Your task to perform on an android device: delete browsing data in the chrome app Image 0: 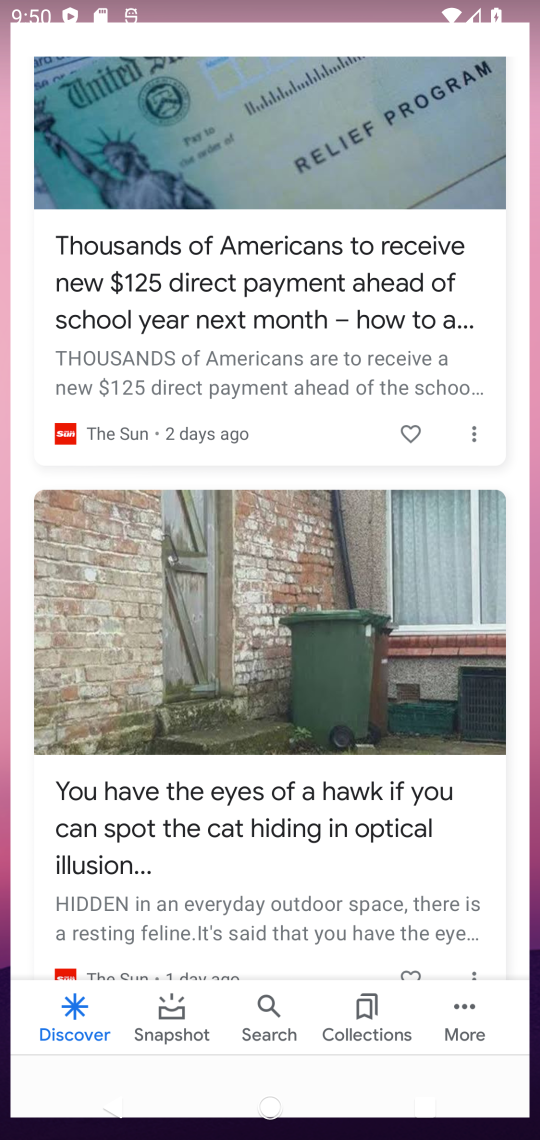
Step 0: press home button
Your task to perform on an android device: delete browsing data in the chrome app Image 1: 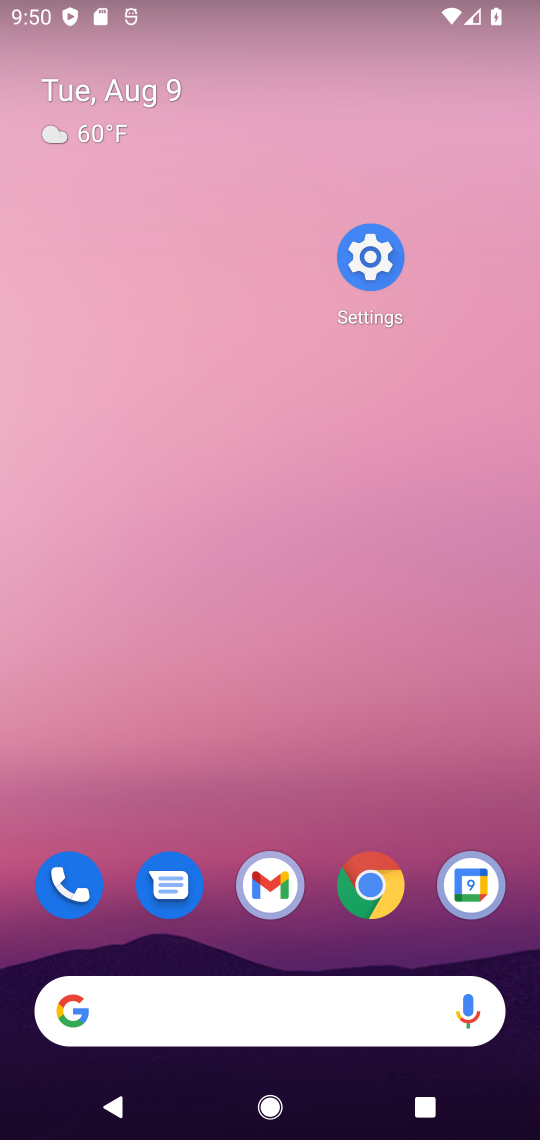
Step 1: press home button
Your task to perform on an android device: delete browsing data in the chrome app Image 2: 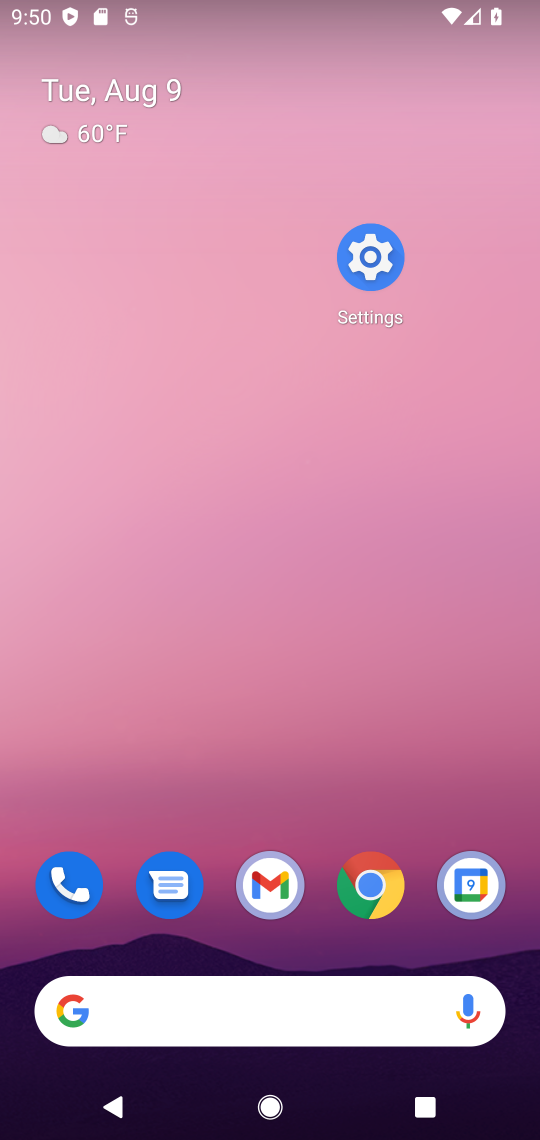
Step 2: drag from (320, 951) to (374, 281)
Your task to perform on an android device: delete browsing data in the chrome app Image 3: 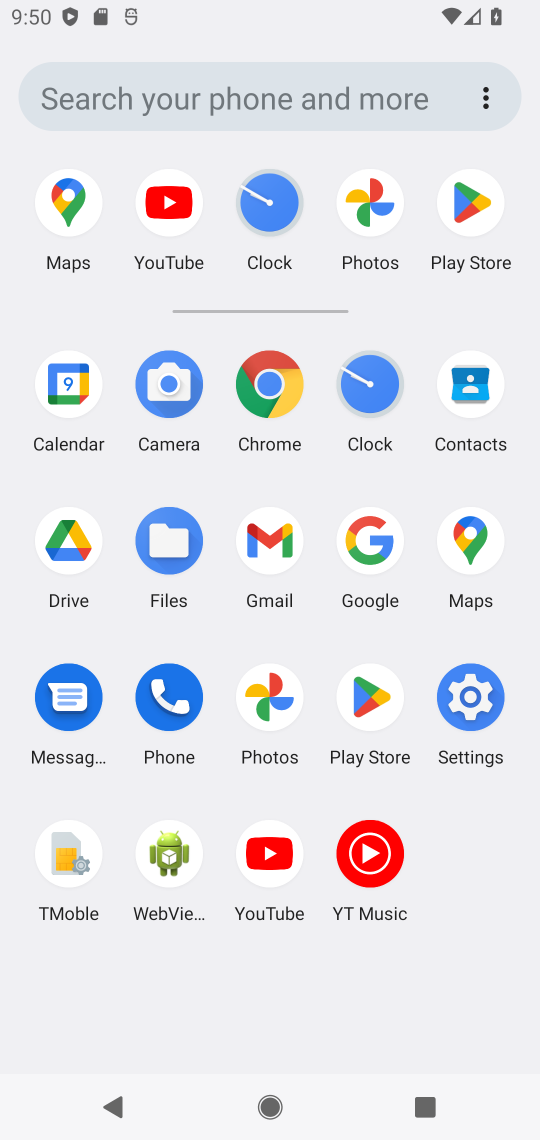
Step 3: click (267, 377)
Your task to perform on an android device: delete browsing data in the chrome app Image 4: 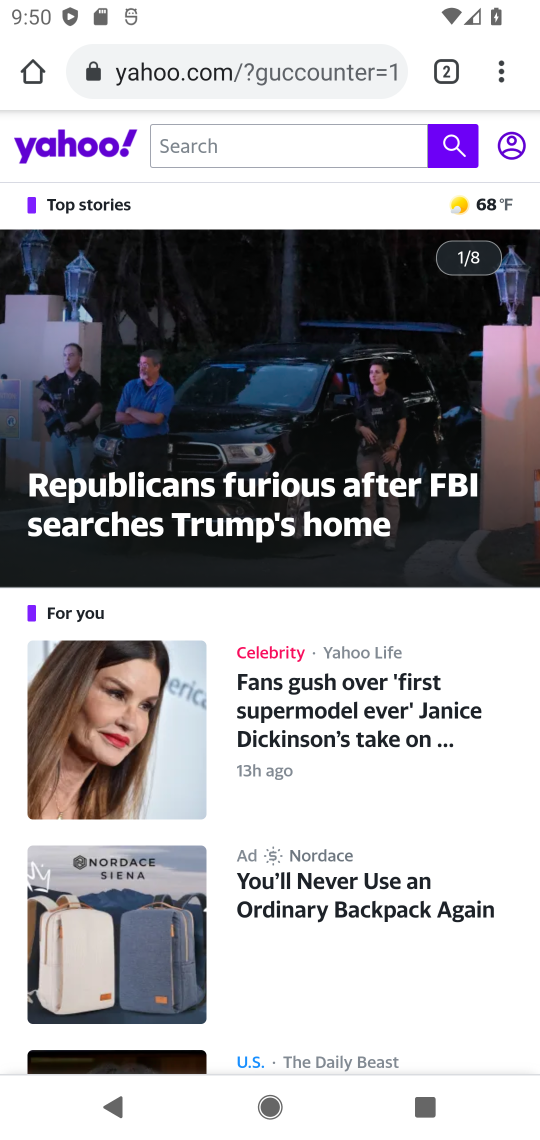
Step 4: click (501, 77)
Your task to perform on an android device: delete browsing data in the chrome app Image 5: 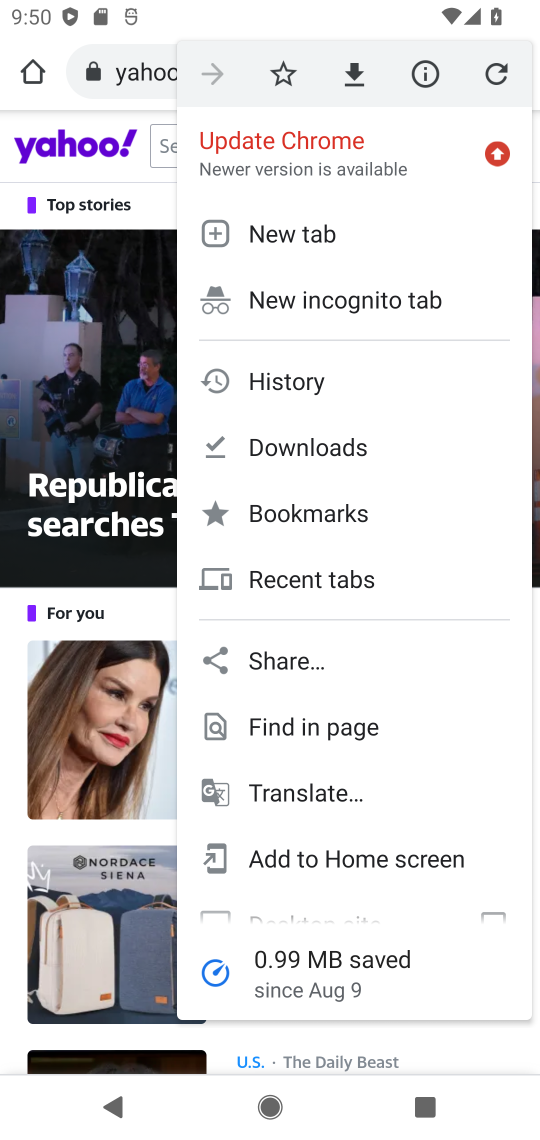
Step 5: drag from (356, 872) to (354, 209)
Your task to perform on an android device: delete browsing data in the chrome app Image 6: 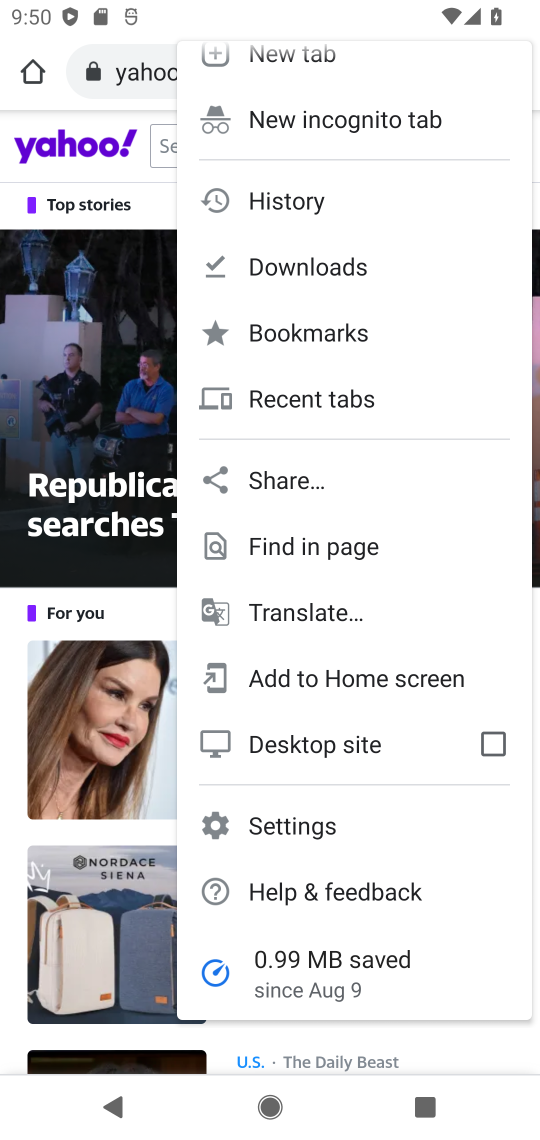
Step 6: click (347, 192)
Your task to perform on an android device: delete browsing data in the chrome app Image 7: 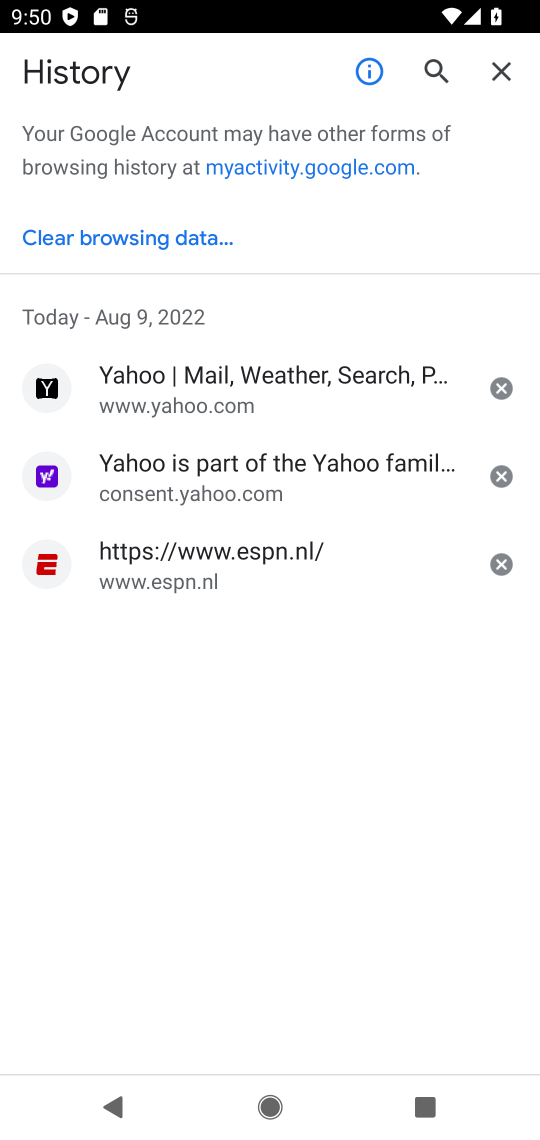
Step 7: click (115, 232)
Your task to perform on an android device: delete browsing data in the chrome app Image 8: 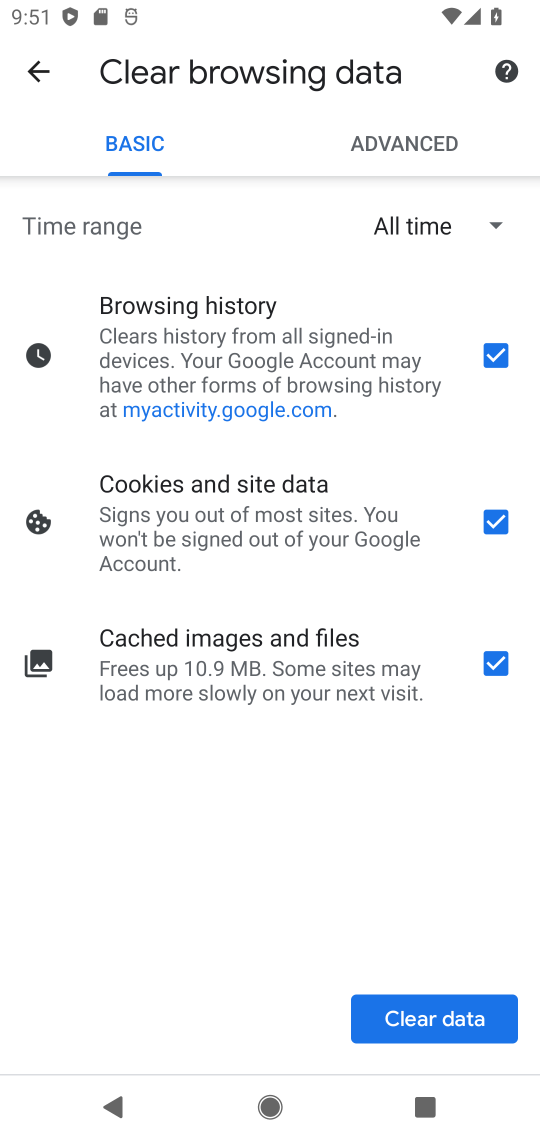
Step 8: click (493, 515)
Your task to perform on an android device: delete browsing data in the chrome app Image 9: 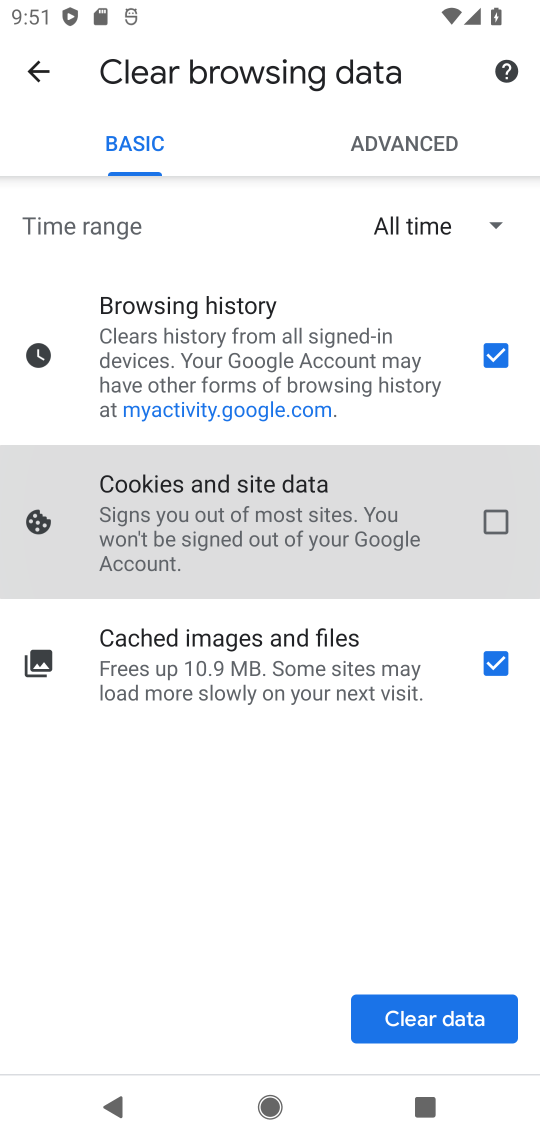
Step 9: click (488, 662)
Your task to perform on an android device: delete browsing data in the chrome app Image 10: 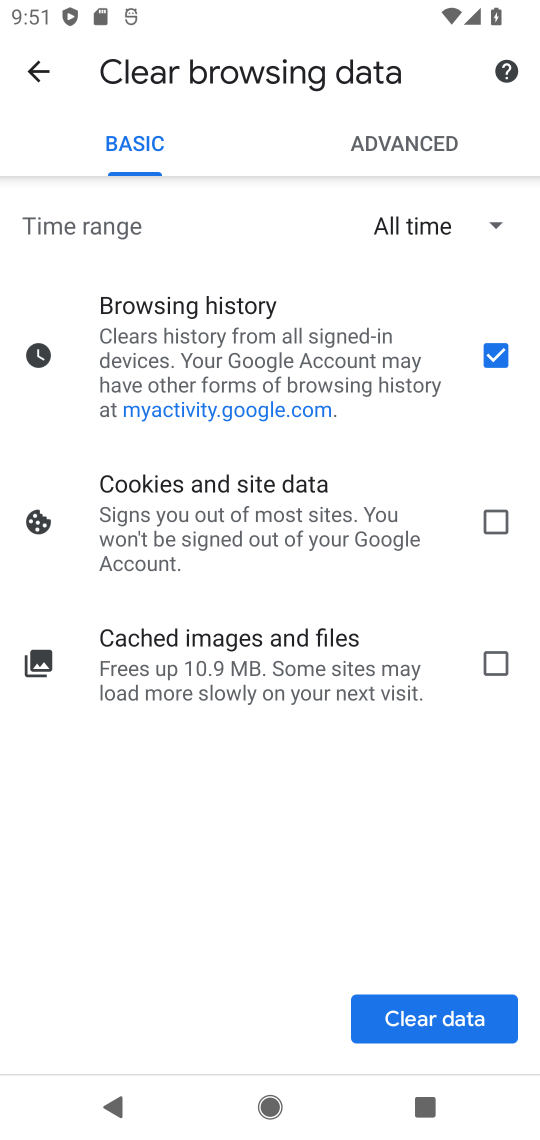
Step 10: click (431, 1015)
Your task to perform on an android device: delete browsing data in the chrome app Image 11: 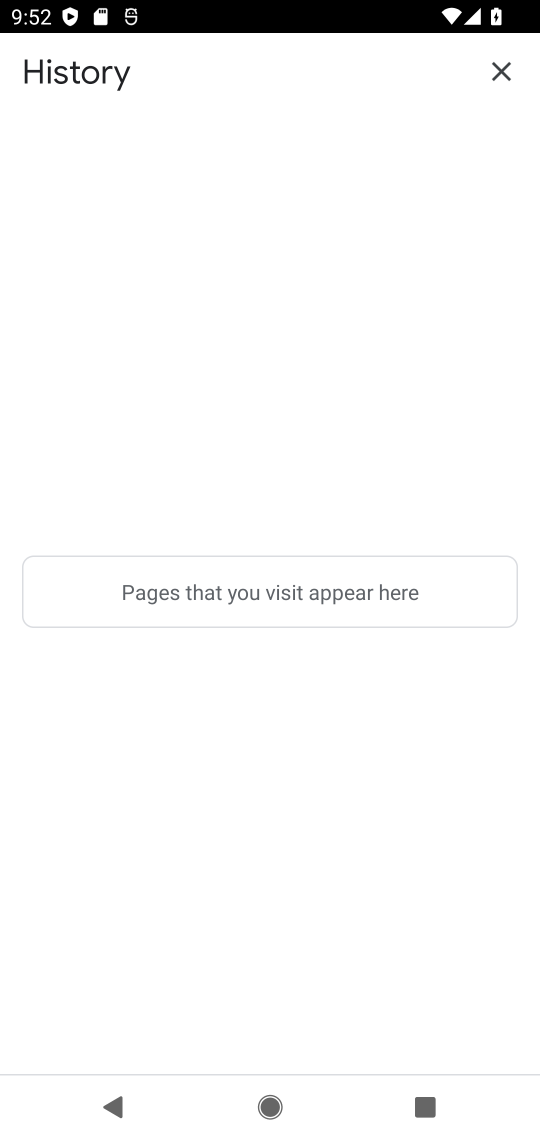
Step 11: task complete